Your task to perform on an android device: Open Wikipedia Image 0: 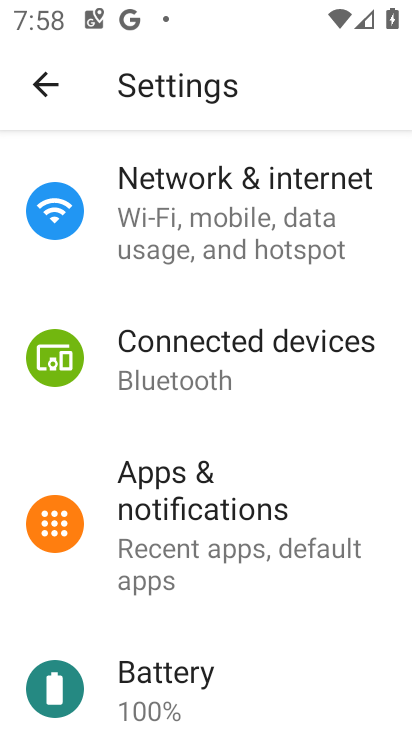
Step 0: press home button
Your task to perform on an android device: Open Wikipedia Image 1: 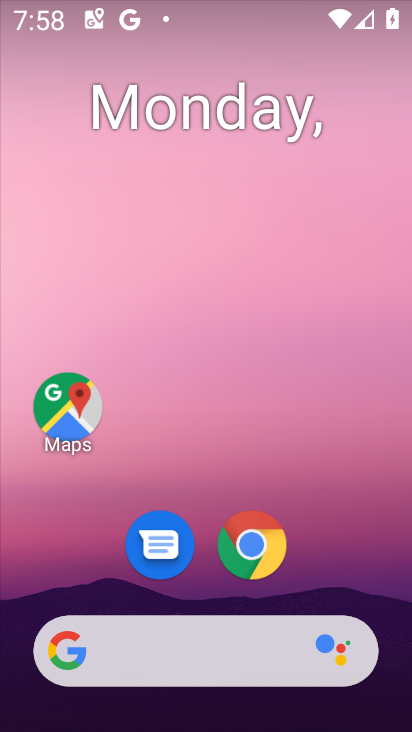
Step 1: drag from (213, 636) to (383, 61)
Your task to perform on an android device: Open Wikipedia Image 2: 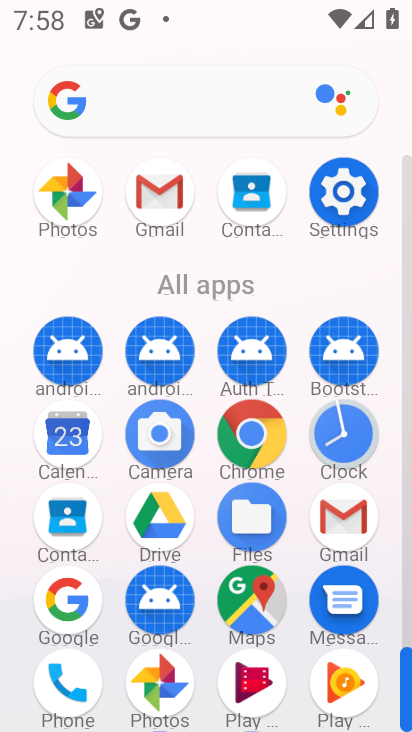
Step 2: click (257, 439)
Your task to perform on an android device: Open Wikipedia Image 3: 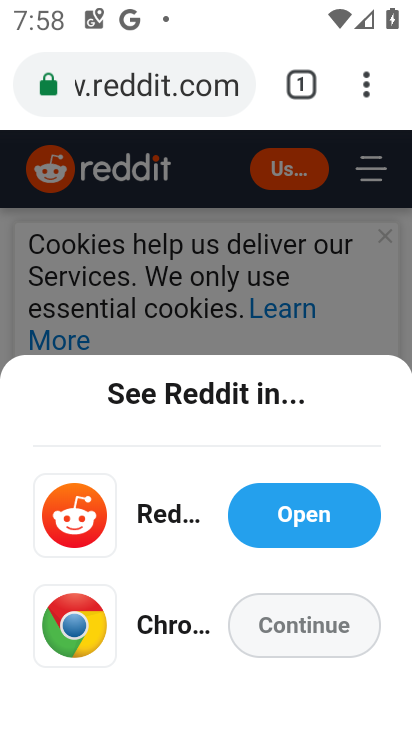
Step 3: drag from (368, 92) to (283, 170)
Your task to perform on an android device: Open Wikipedia Image 4: 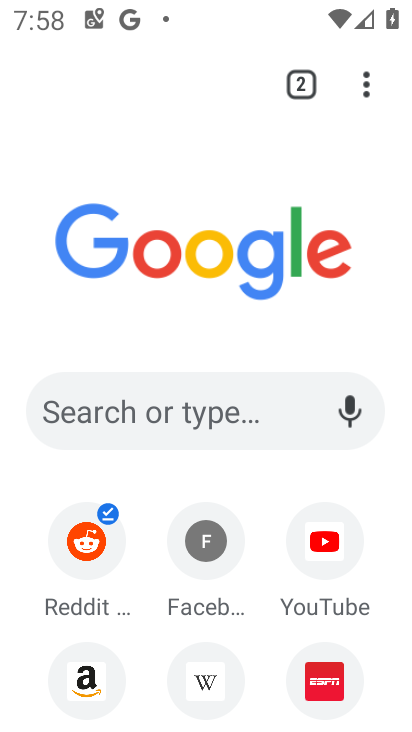
Step 4: drag from (147, 557) to (284, 267)
Your task to perform on an android device: Open Wikipedia Image 5: 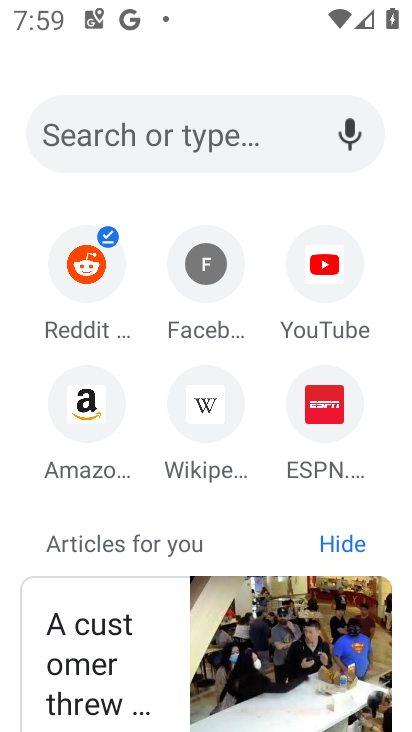
Step 5: click (193, 412)
Your task to perform on an android device: Open Wikipedia Image 6: 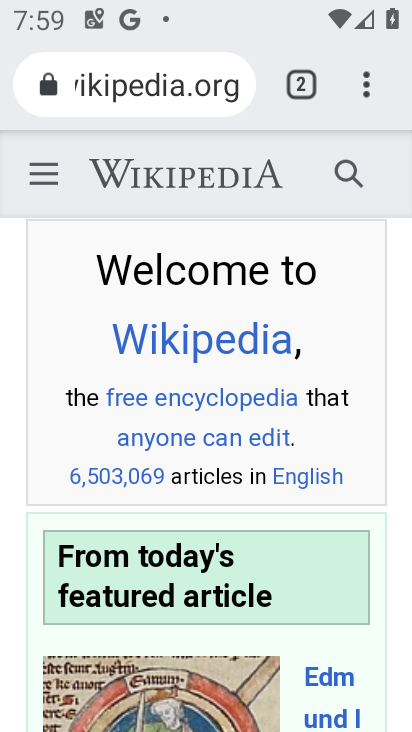
Step 6: task complete